Your task to perform on an android device: empty trash in the gmail app Image 0: 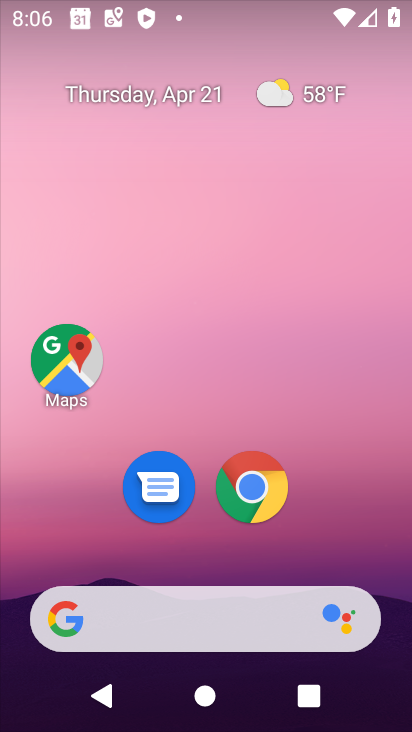
Step 0: drag from (394, 635) to (278, 53)
Your task to perform on an android device: empty trash in the gmail app Image 1: 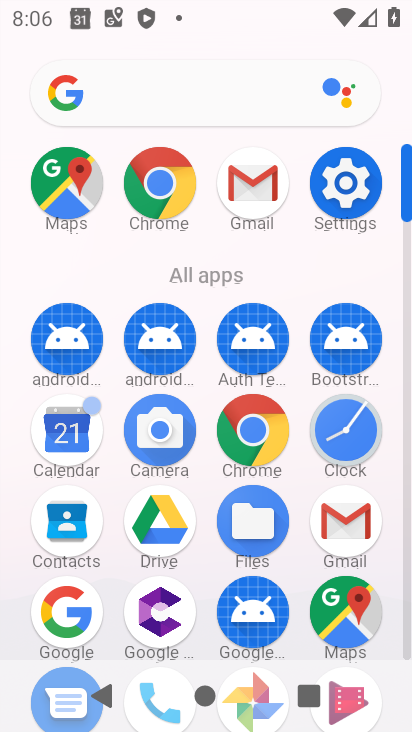
Step 1: drag from (16, 614) to (2, 307)
Your task to perform on an android device: empty trash in the gmail app Image 2: 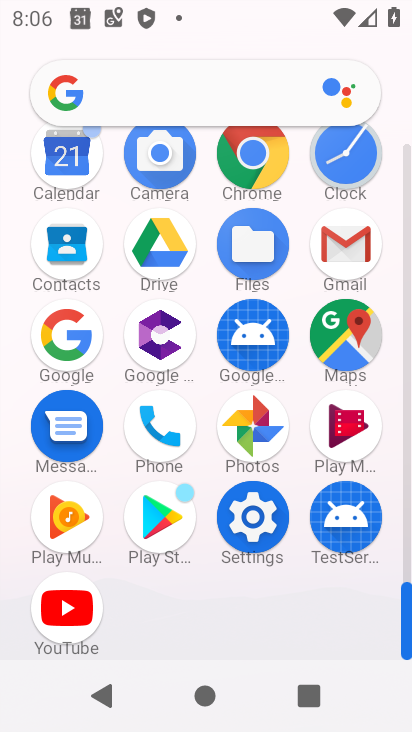
Step 2: click (345, 234)
Your task to perform on an android device: empty trash in the gmail app Image 3: 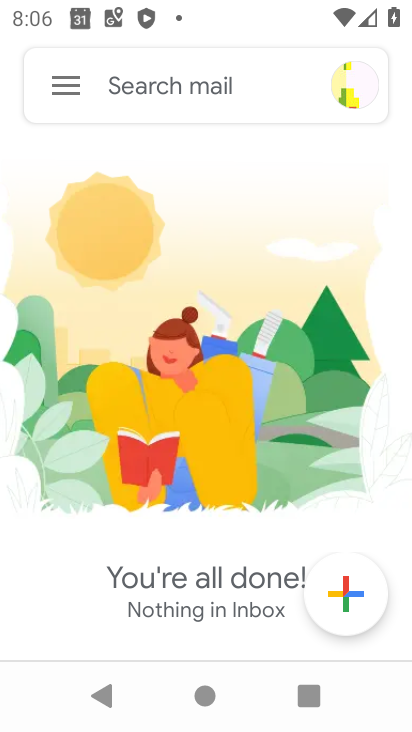
Step 3: click (55, 78)
Your task to perform on an android device: empty trash in the gmail app Image 4: 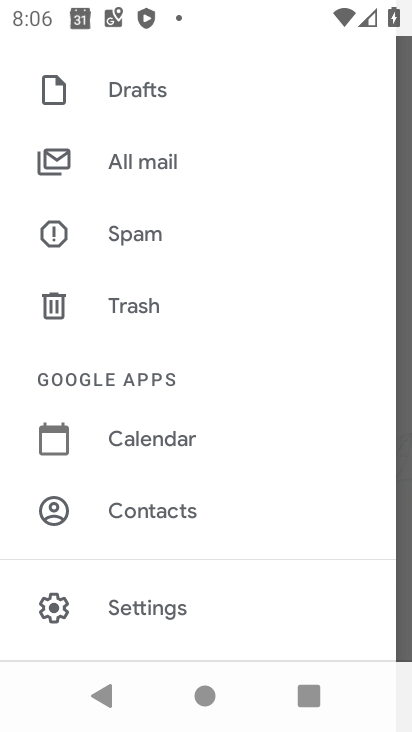
Step 4: click (164, 303)
Your task to perform on an android device: empty trash in the gmail app Image 5: 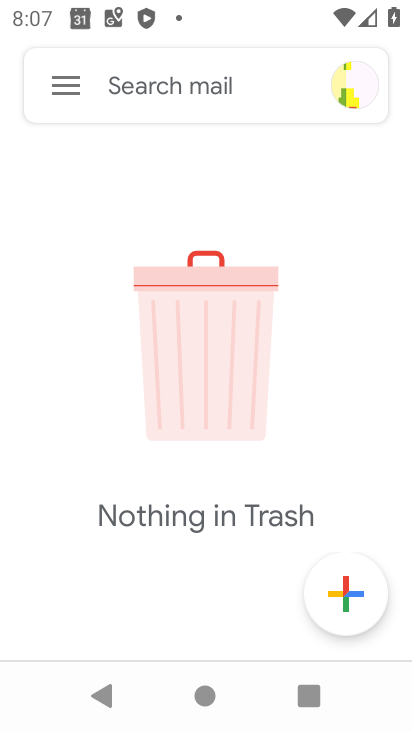
Step 5: task complete